Your task to perform on an android device: Do I have any events tomorrow? Image 0: 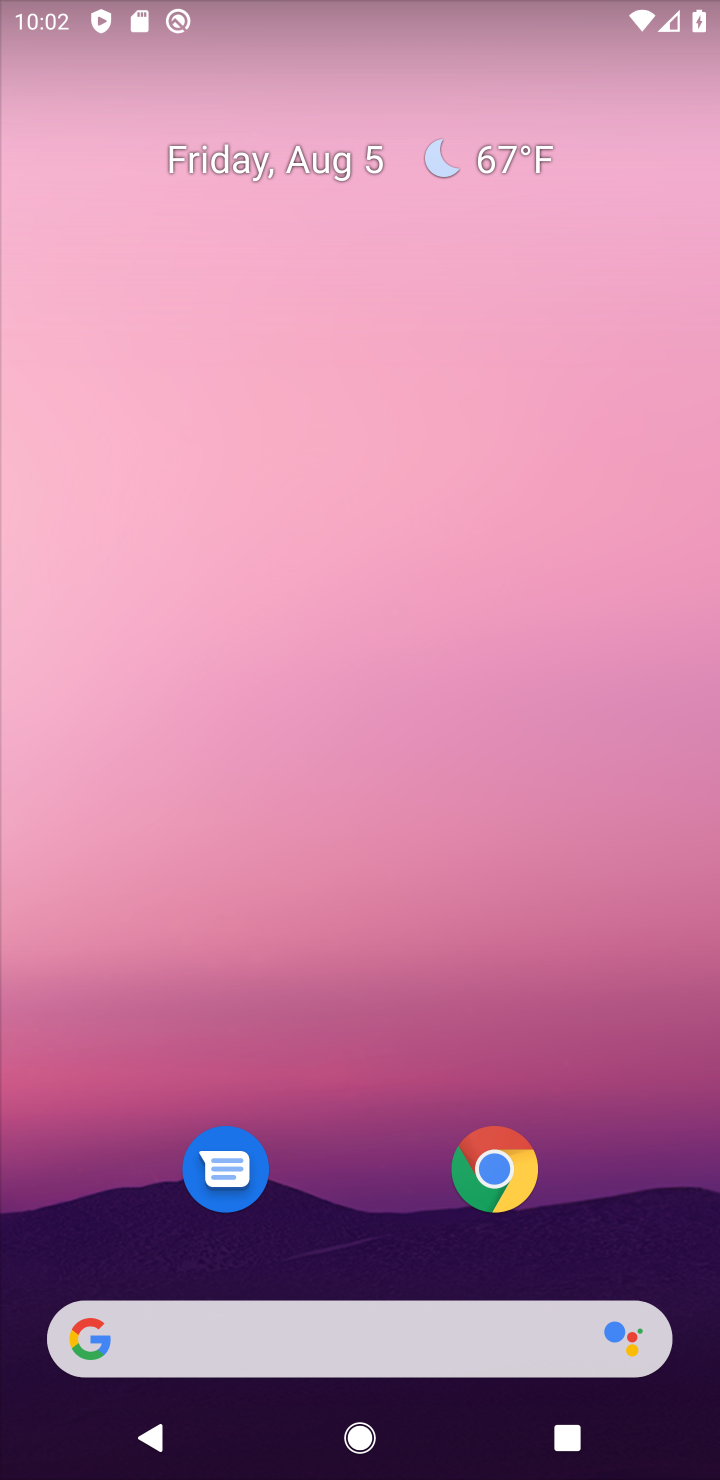
Step 0: drag from (629, 1083) to (591, 245)
Your task to perform on an android device: Do I have any events tomorrow? Image 1: 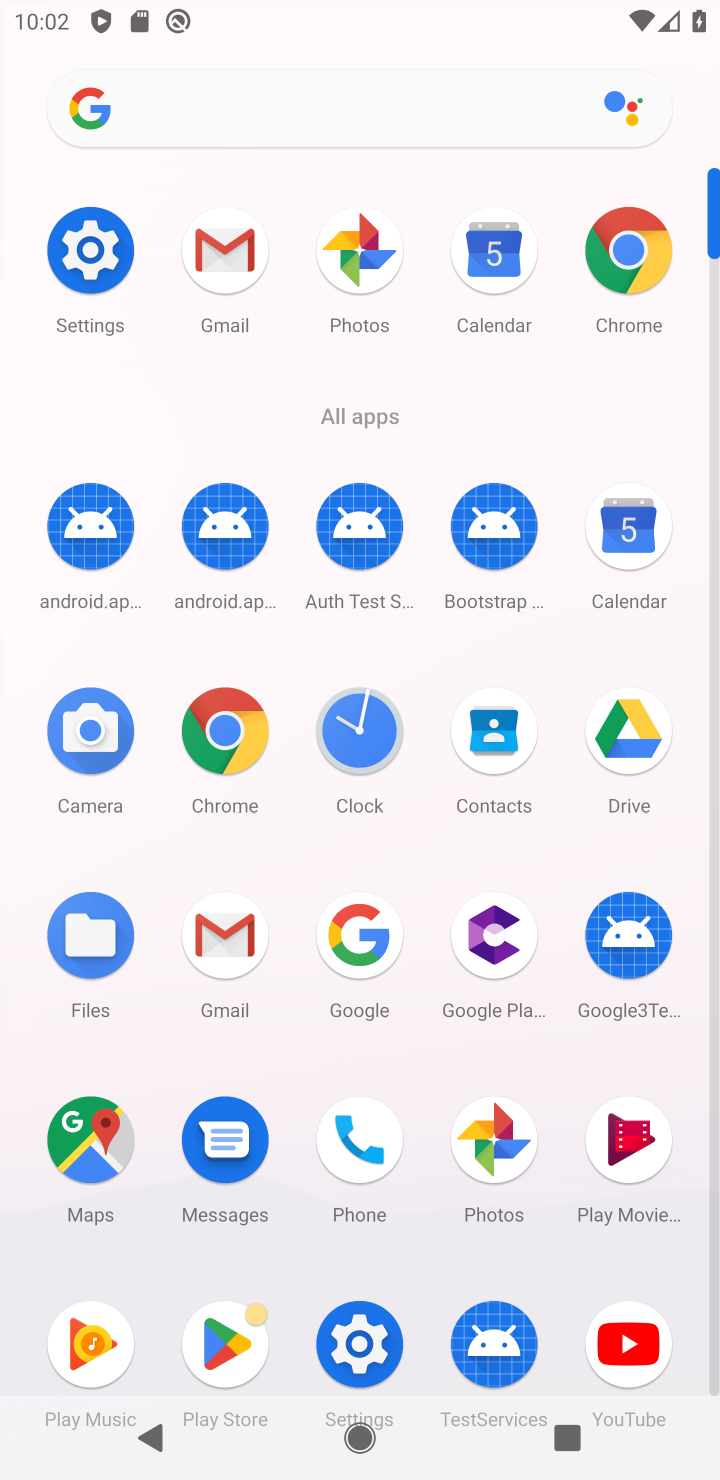
Step 1: click (220, 936)
Your task to perform on an android device: Do I have any events tomorrow? Image 2: 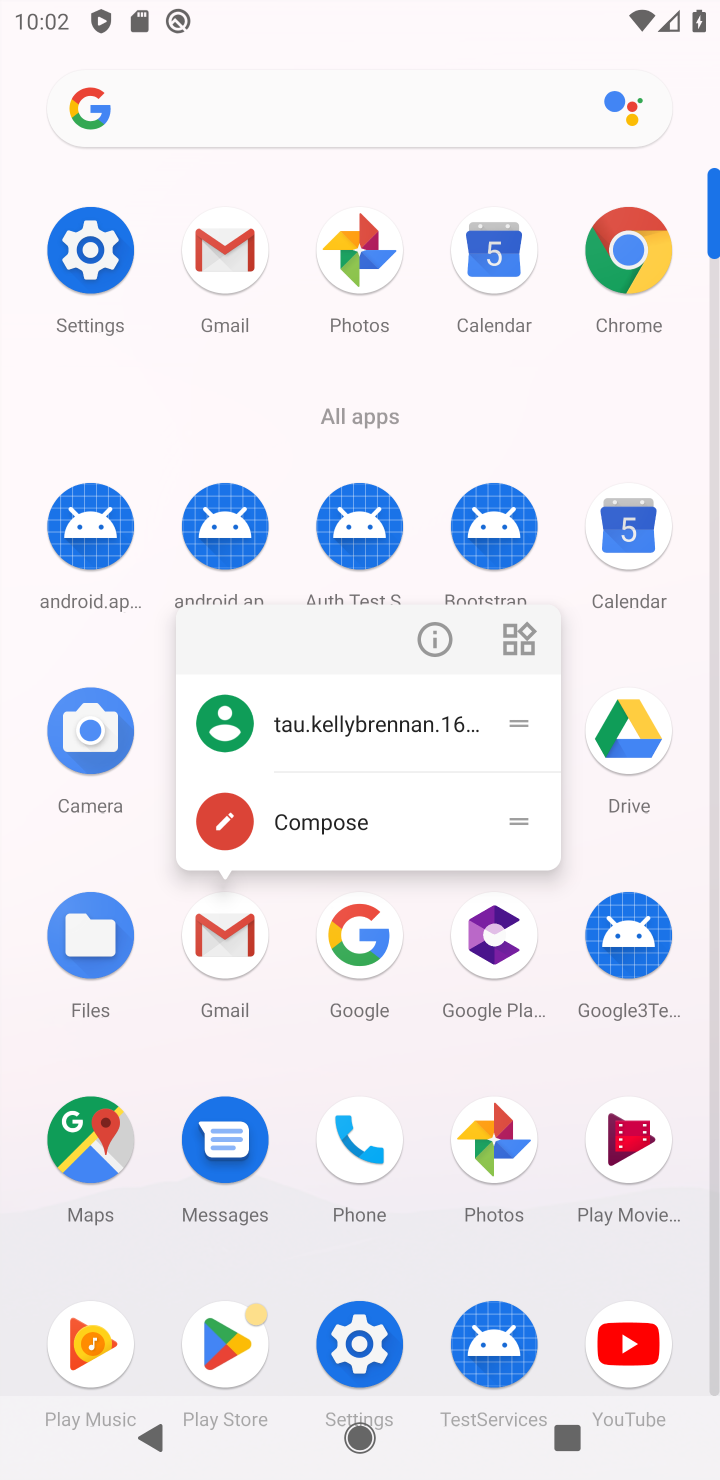
Step 2: click (633, 530)
Your task to perform on an android device: Do I have any events tomorrow? Image 3: 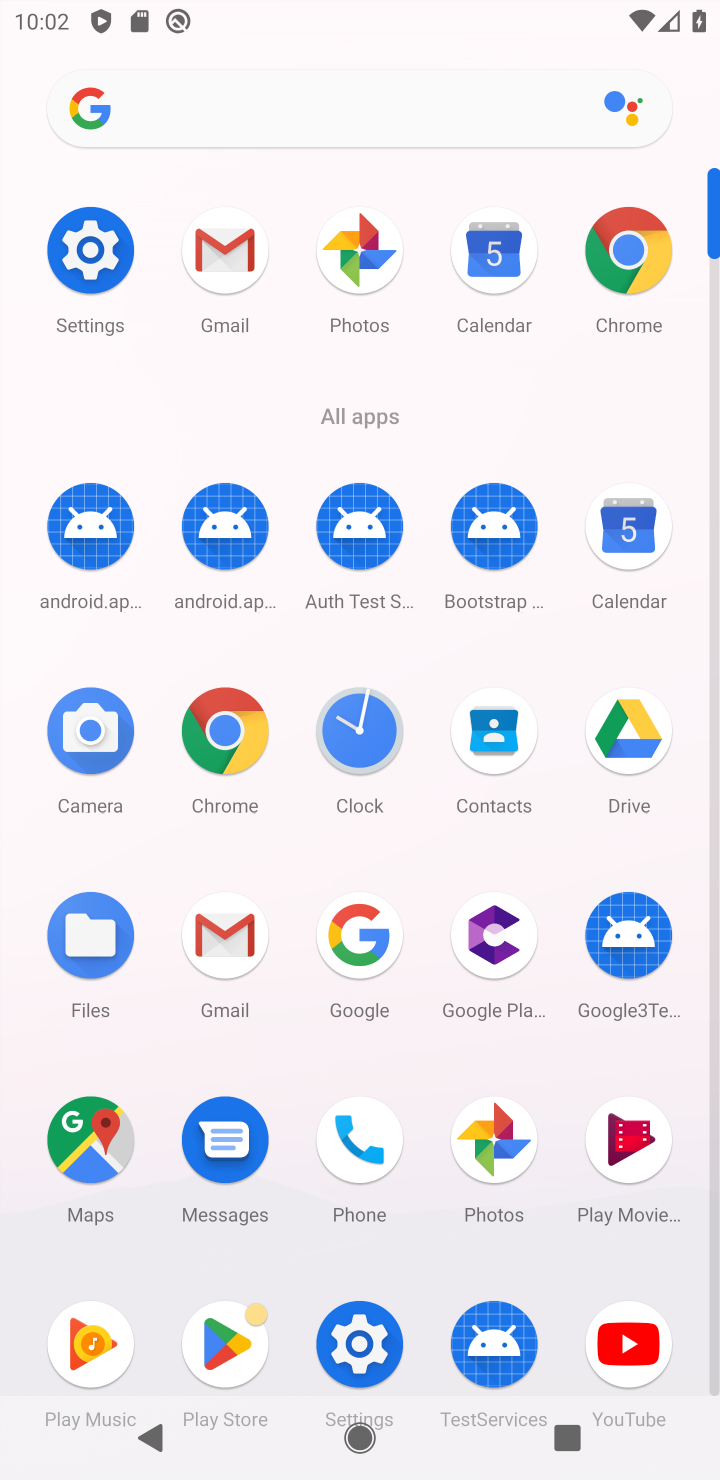
Step 3: click (622, 526)
Your task to perform on an android device: Do I have any events tomorrow? Image 4: 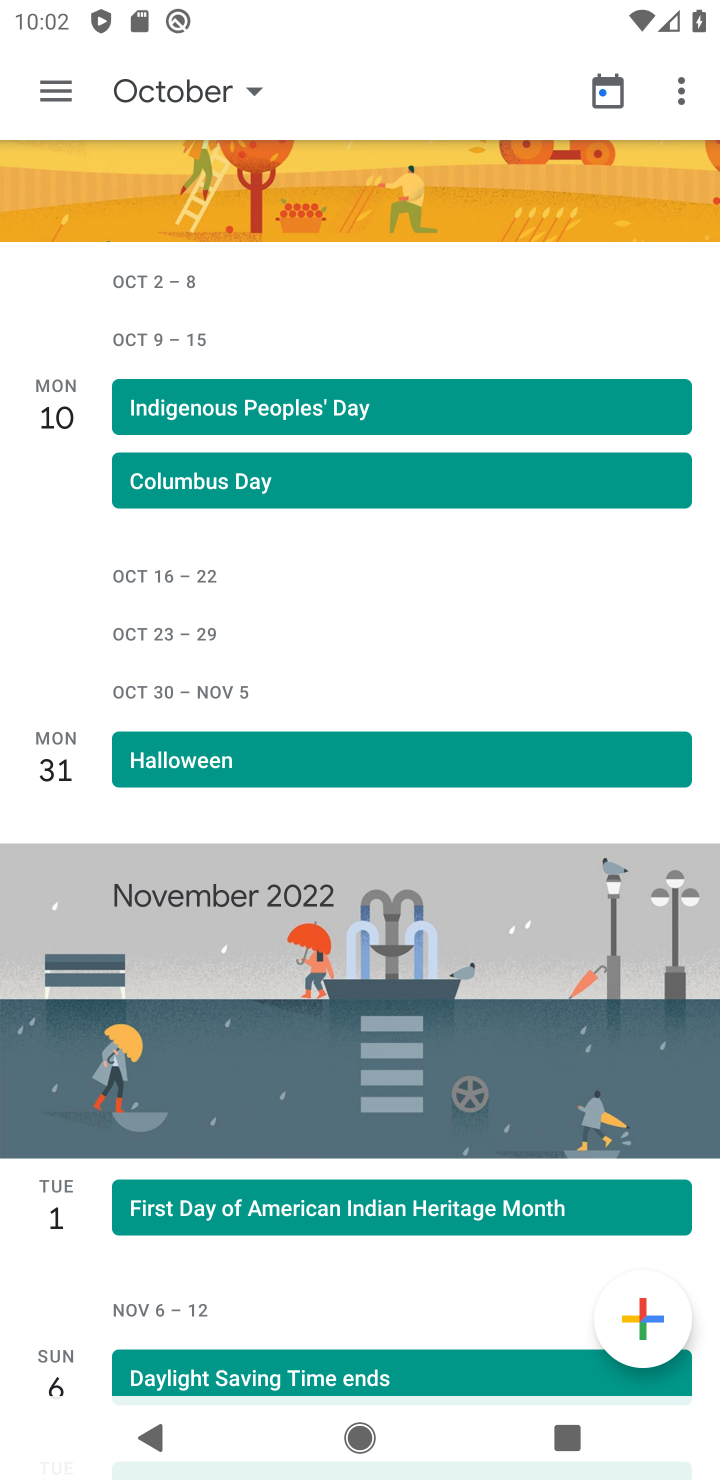
Step 4: drag from (369, 305) to (322, 843)
Your task to perform on an android device: Do I have any events tomorrow? Image 5: 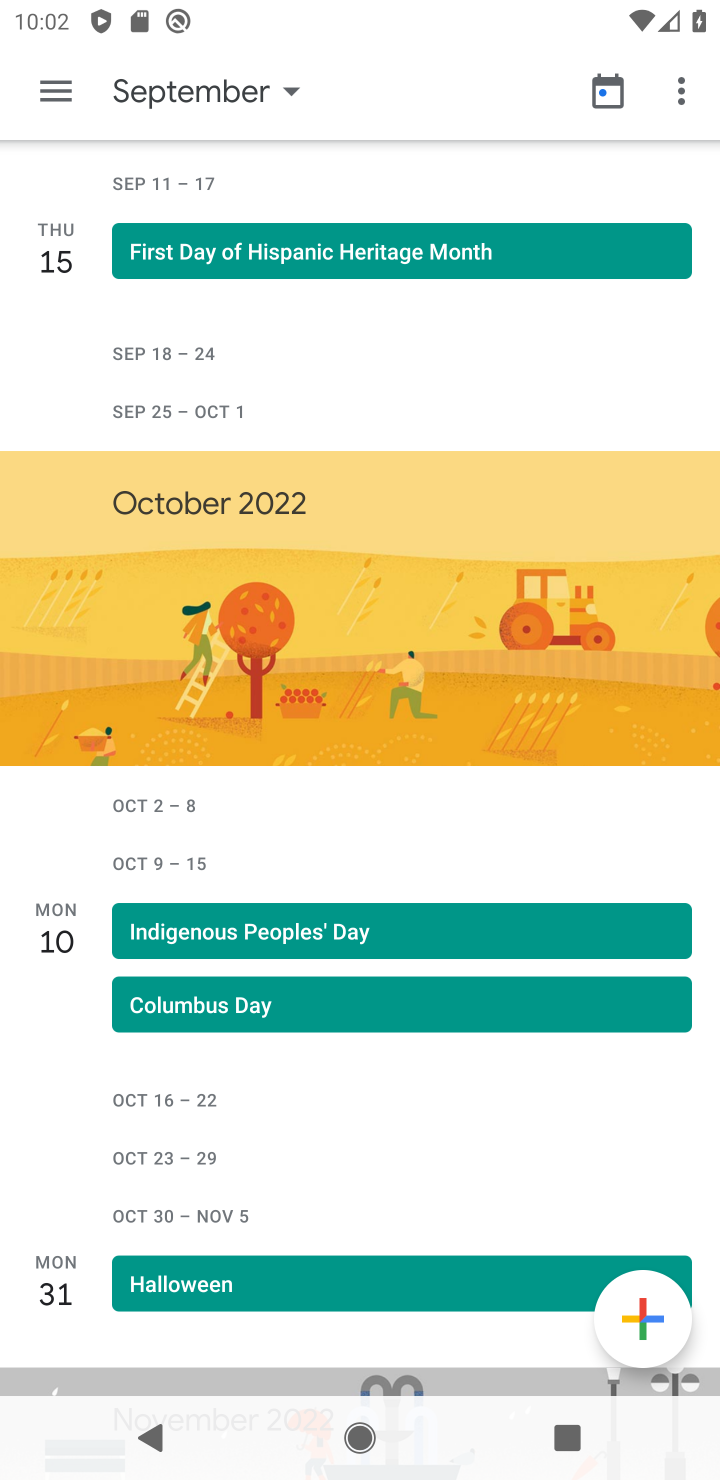
Step 5: click (58, 93)
Your task to perform on an android device: Do I have any events tomorrow? Image 6: 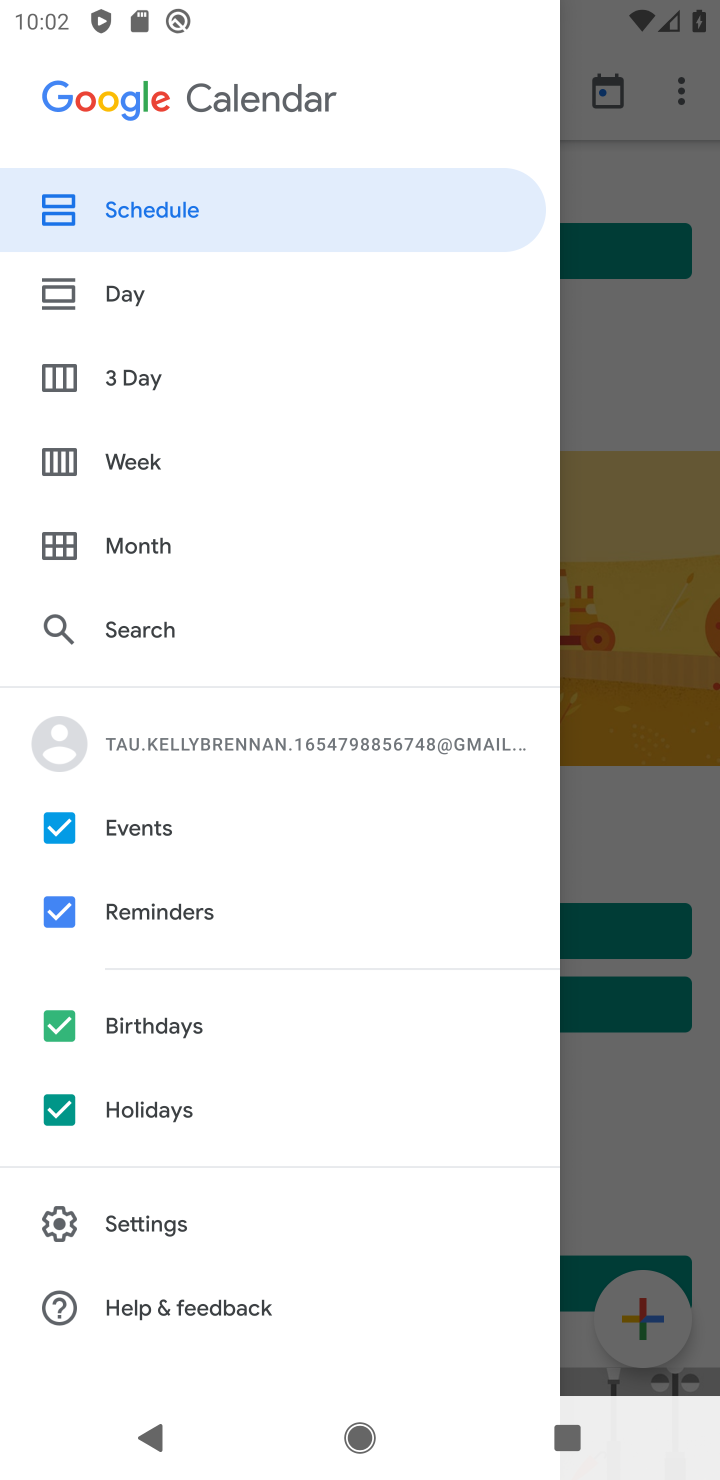
Step 6: click (127, 292)
Your task to perform on an android device: Do I have any events tomorrow? Image 7: 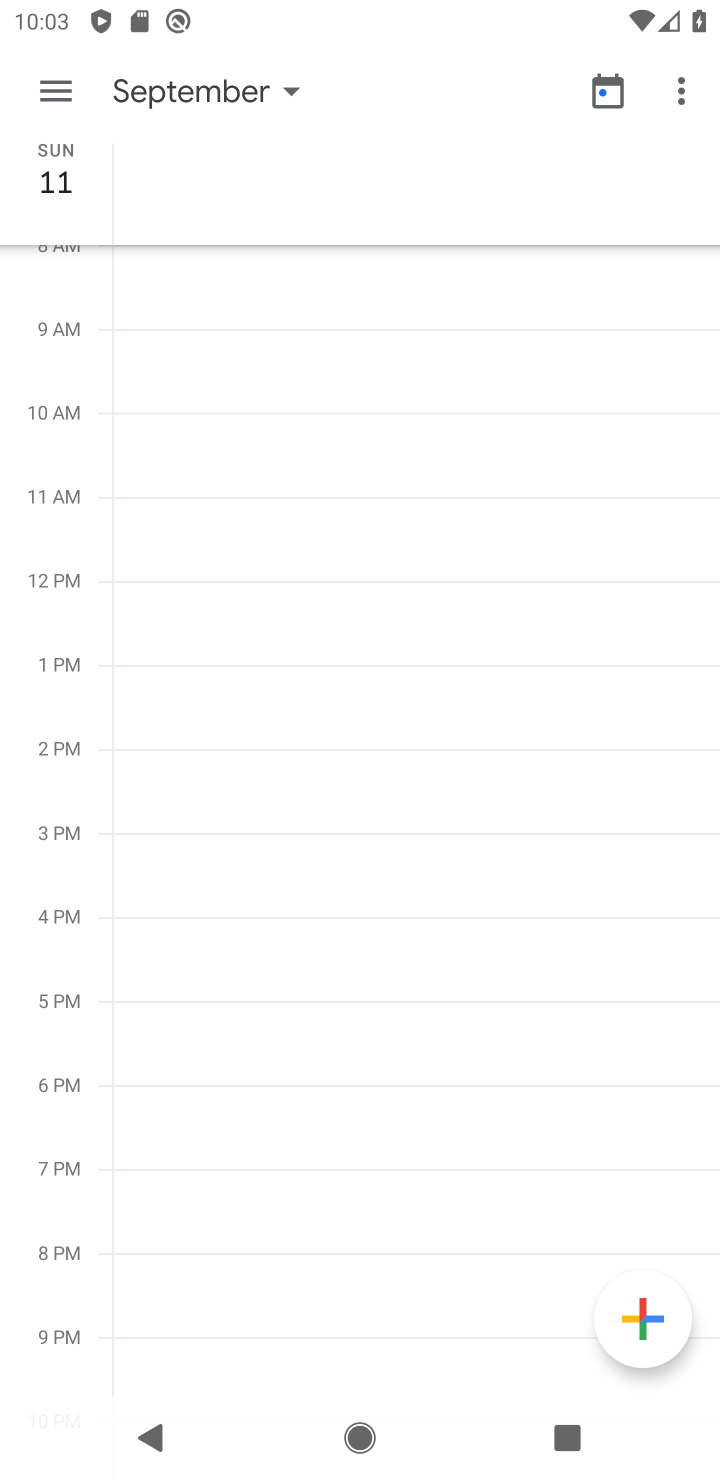
Step 7: click (285, 94)
Your task to perform on an android device: Do I have any events tomorrow? Image 8: 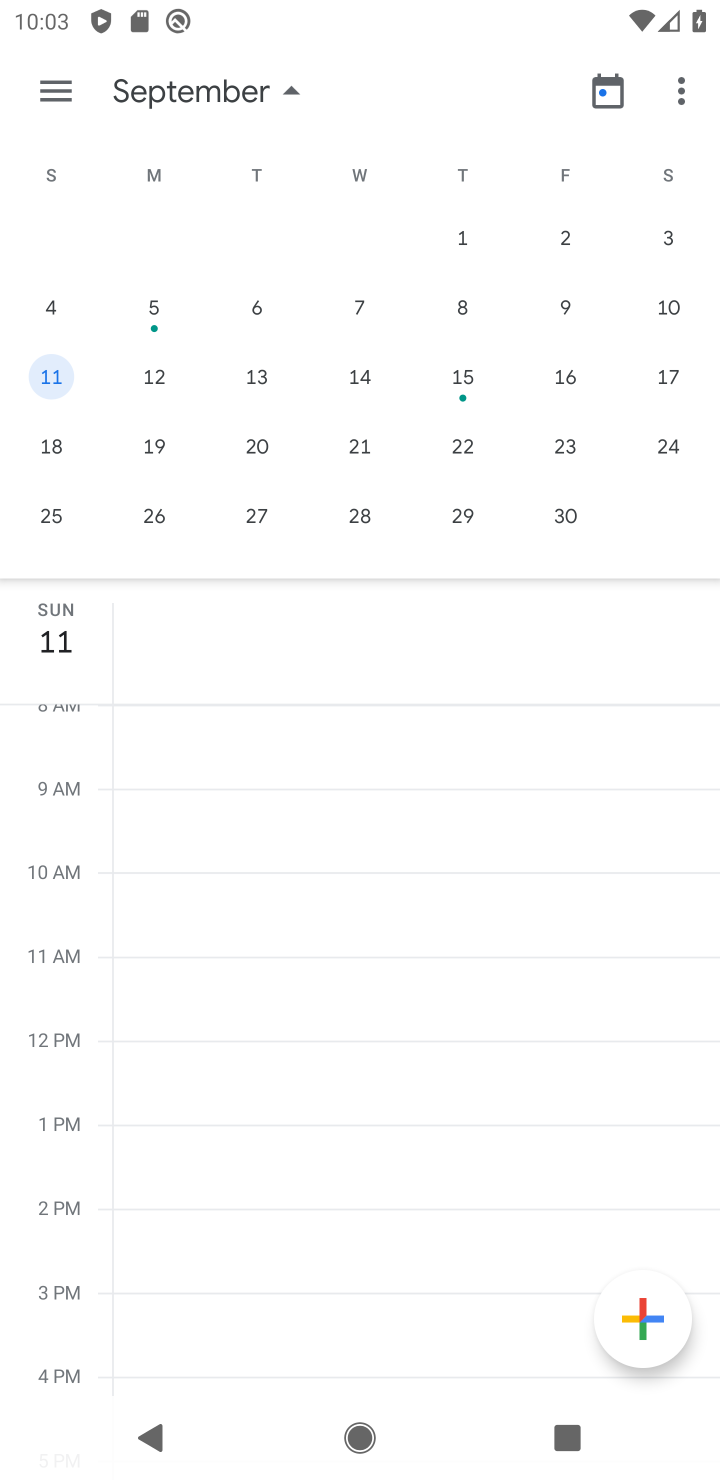
Step 8: drag from (41, 384) to (718, 413)
Your task to perform on an android device: Do I have any events tomorrow? Image 9: 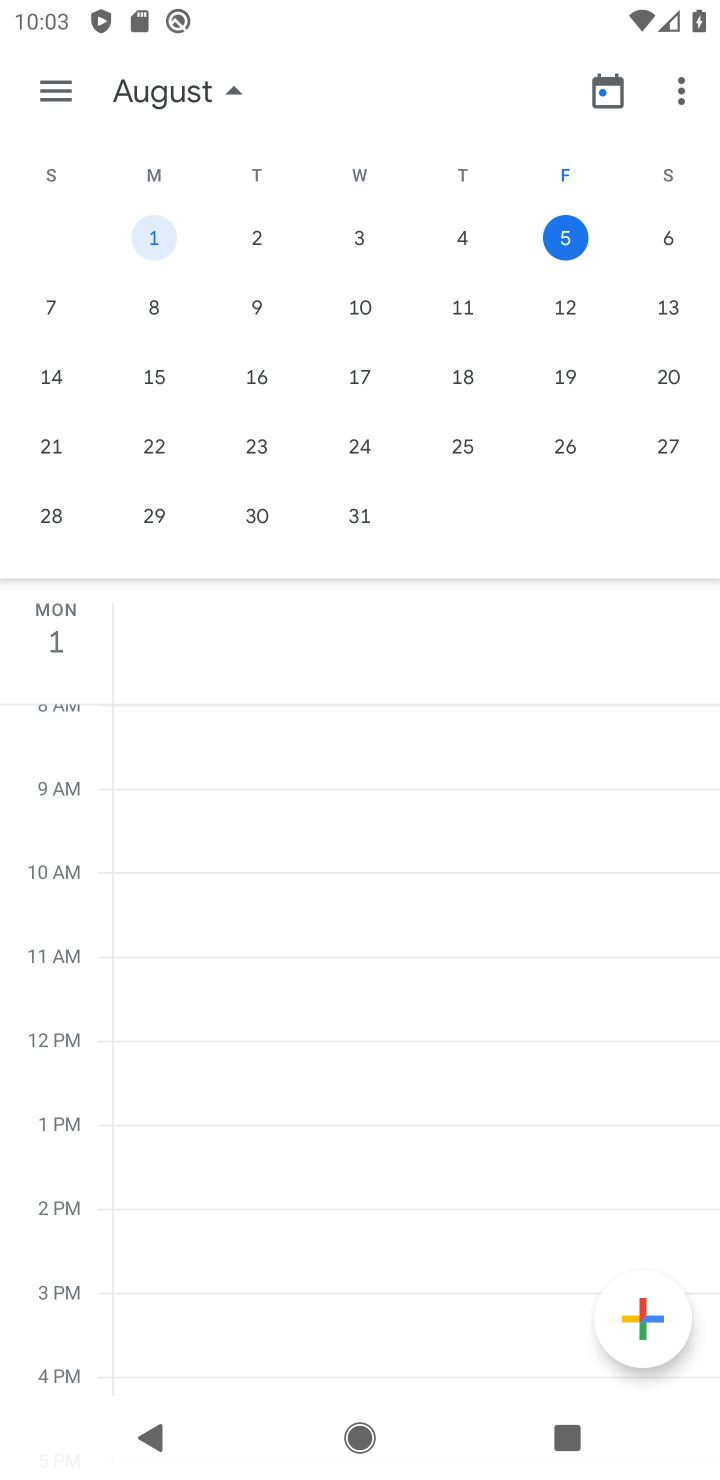
Step 9: click (665, 235)
Your task to perform on an android device: Do I have any events tomorrow? Image 10: 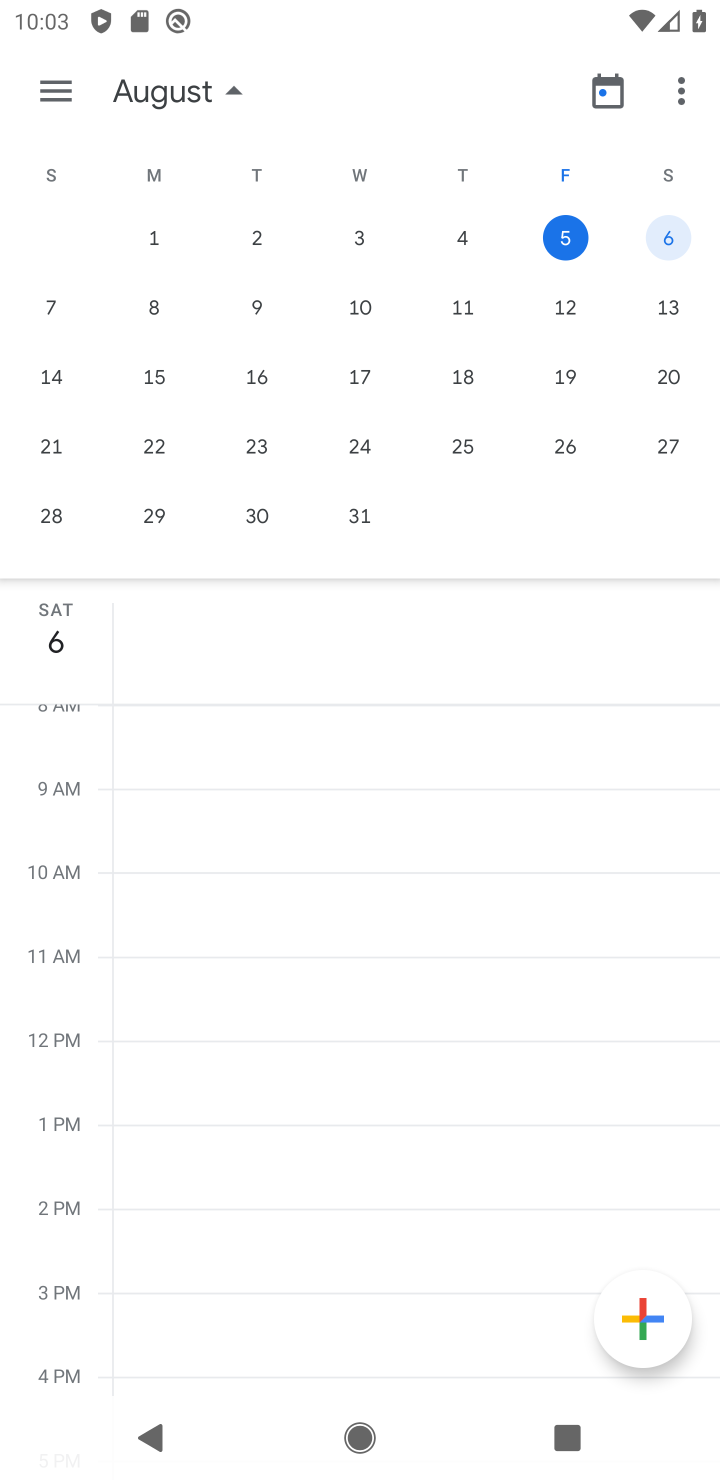
Step 10: task complete